Your task to perform on an android device: Open notification settings Image 0: 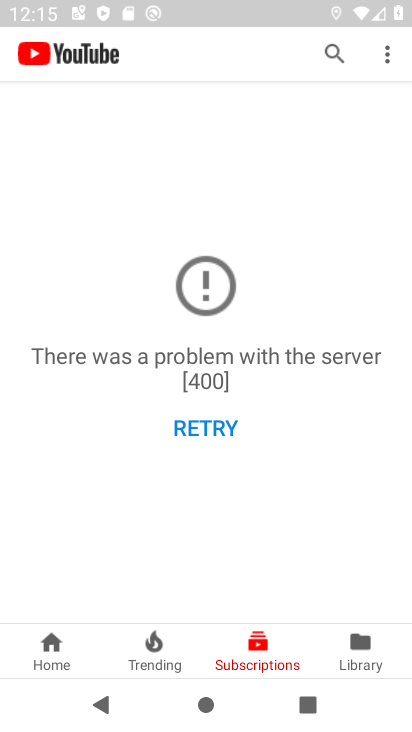
Step 0: press home button
Your task to perform on an android device: Open notification settings Image 1: 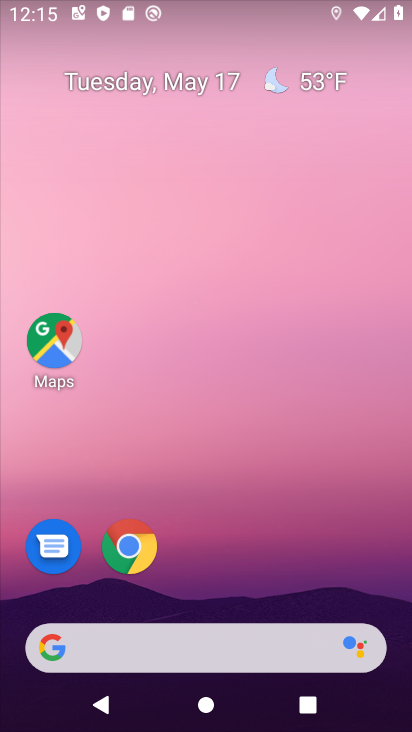
Step 1: drag from (227, 540) to (250, 57)
Your task to perform on an android device: Open notification settings Image 2: 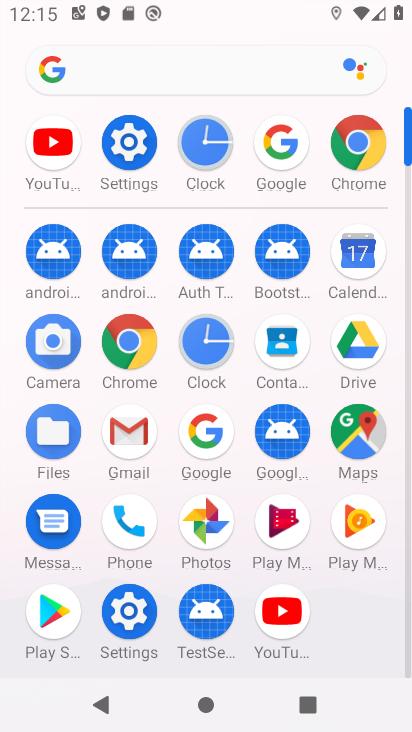
Step 2: click (131, 140)
Your task to perform on an android device: Open notification settings Image 3: 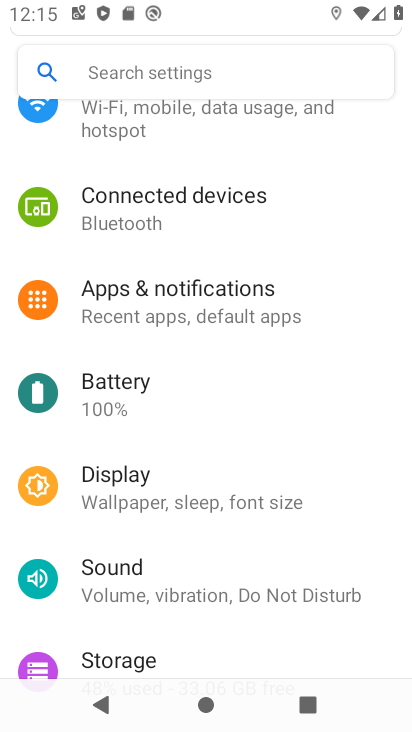
Step 3: click (173, 304)
Your task to perform on an android device: Open notification settings Image 4: 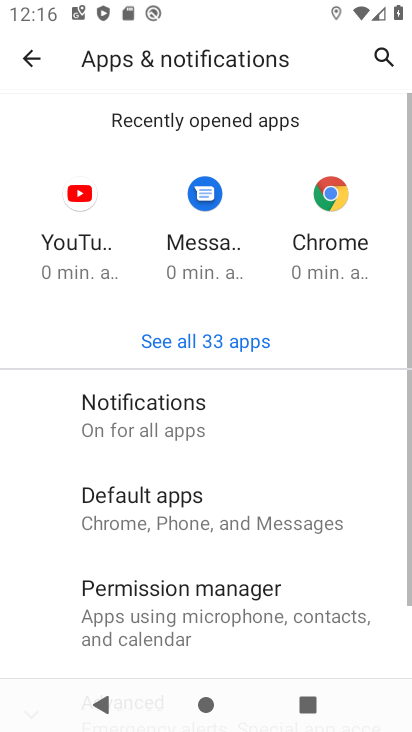
Step 4: click (191, 421)
Your task to perform on an android device: Open notification settings Image 5: 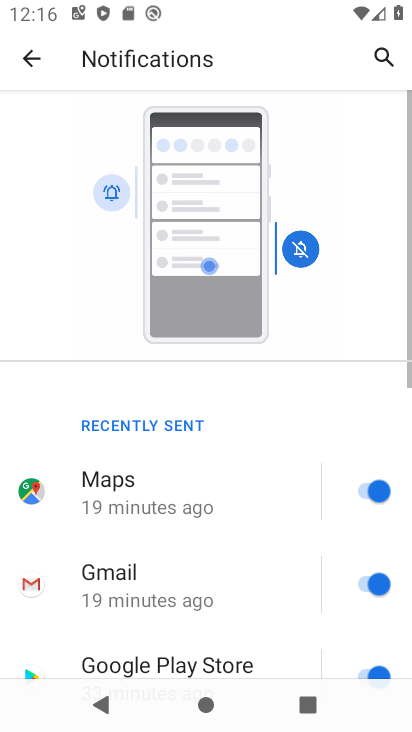
Step 5: drag from (234, 560) to (254, 101)
Your task to perform on an android device: Open notification settings Image 6: 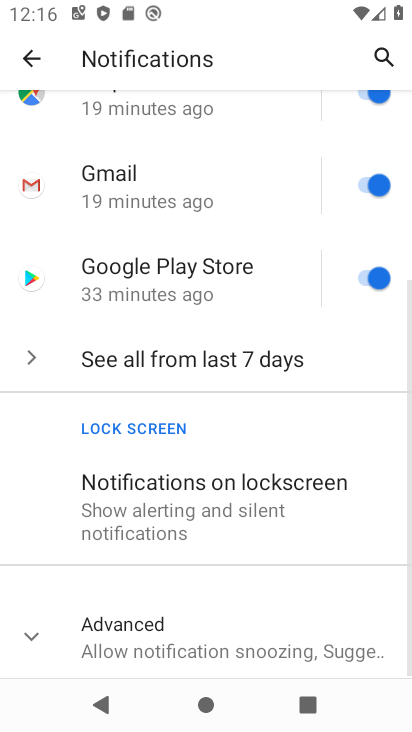
Step 6: drag from (205, 591) to (244, 162)
Your task to perform on an android device: Open notification settings Image 7: 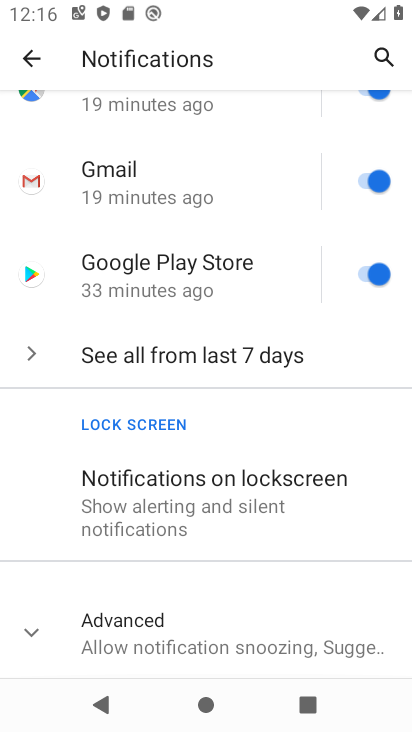
Step 7: click (145, 630)
Your task to perform on an android device: Open notification settings Image 8: 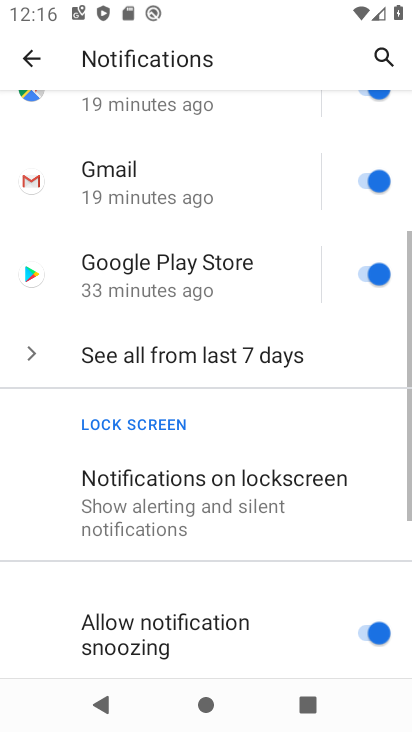
Step 8: drag from (255, 613) to (286, 201)
Your task to perform on an android device: Open notification settings Image 9: 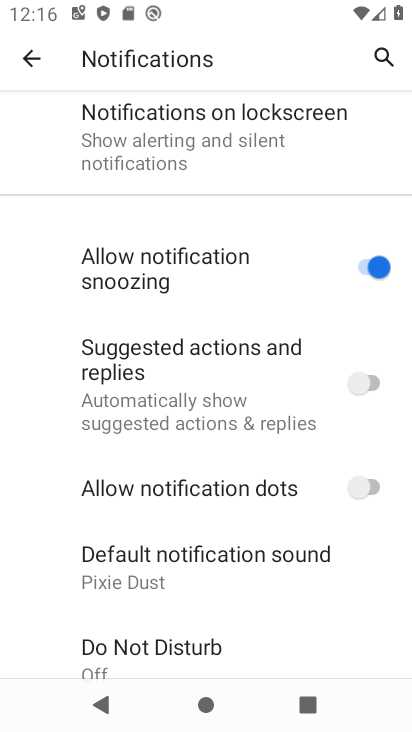
Step 9: click (381, 271)
Your task to perform on an android device: Open notification settings Image 10: 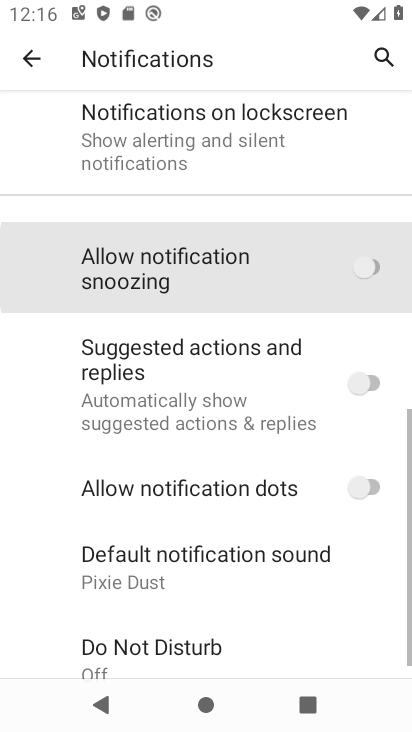
Step 10: click (375, 379)
Your task to perform on an android device: Open notification settings Image 11: 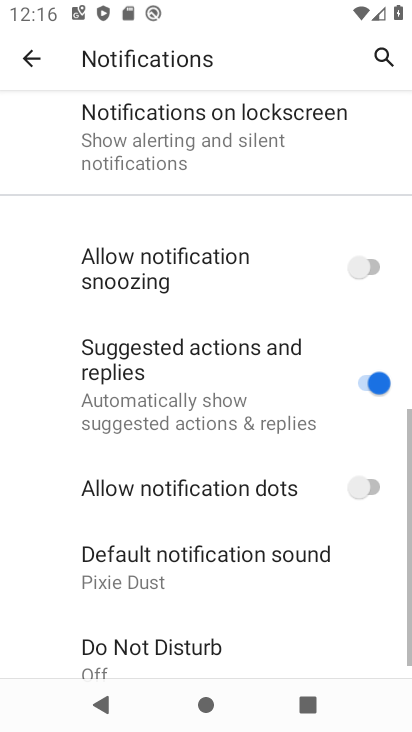
Step 11: click (364, 487)
Your task to perform on an android device: Open notification settings Image 12: 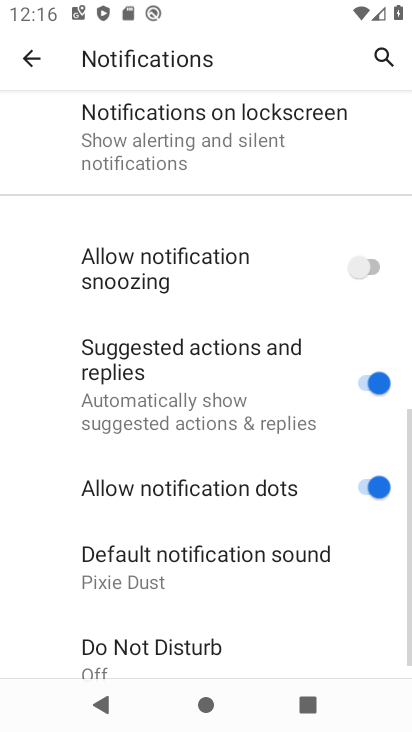
Step 12: task complete